Your task to perform on an android device: see tabs open on other devices in the chrome app Image 0: 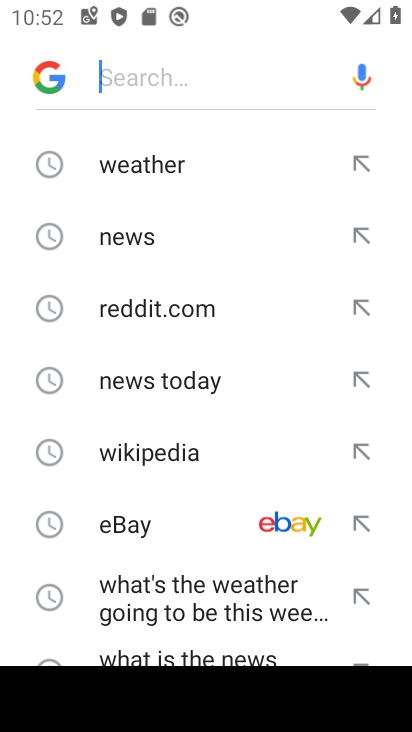
Step 0: press home button
Your task to perform on an android device: see tabs open on other devices in the chrome app Image 1: 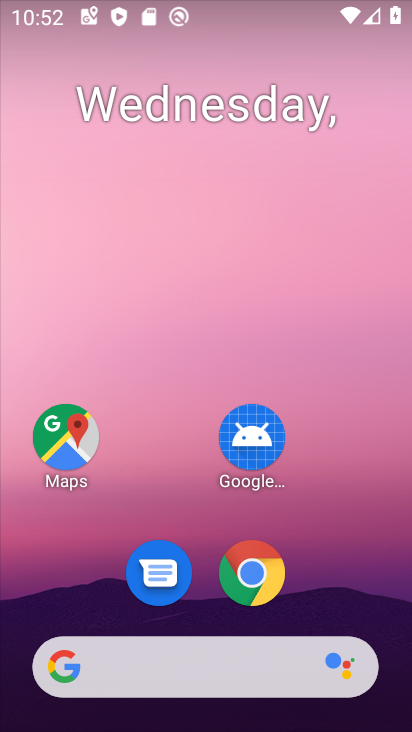
Step 1: click (252, 575)
Your task to perform on an android device: see tabs open on other devices in the chrome app Image 2: 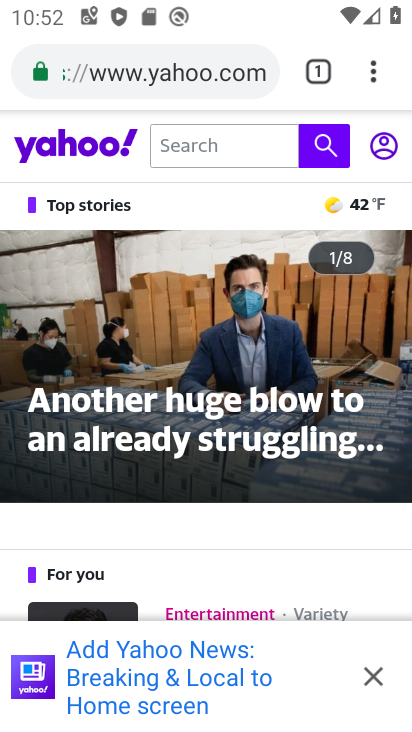
Step 2: click (371, 70)
Your task to perform on an android device: see tabs open on other devices in the chrome app Image 3: 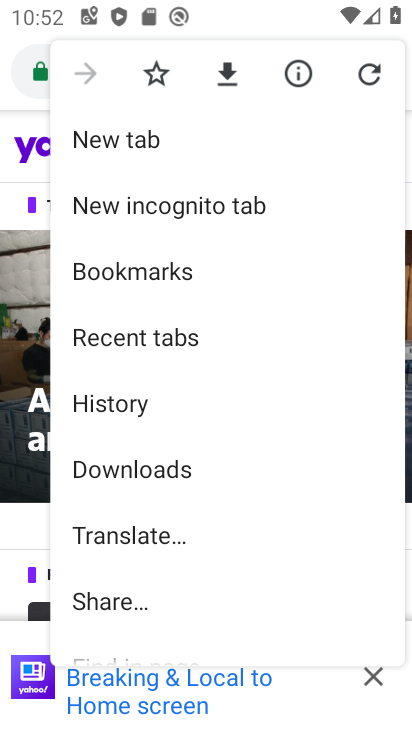
Step 3: click (178, 335)
Your task to perform on an android device: see tabs open on other devices in the chrome app Image 4: 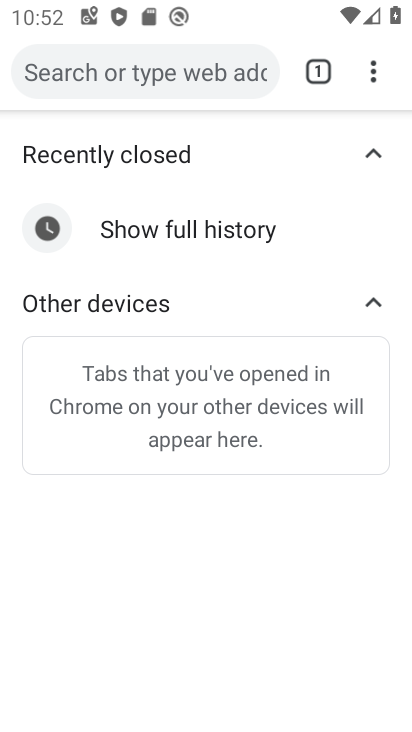
Step 4: click (374, 160)
Your task to perform on an android device: see tabs open on other devices in the chrome app Image 5: 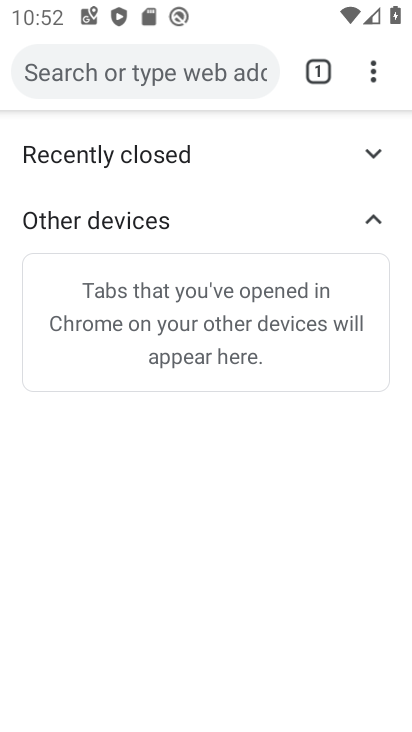
Step 5: task complete